Your task to perform on an android device: toggle priority inbox in the gmail app Image 0: 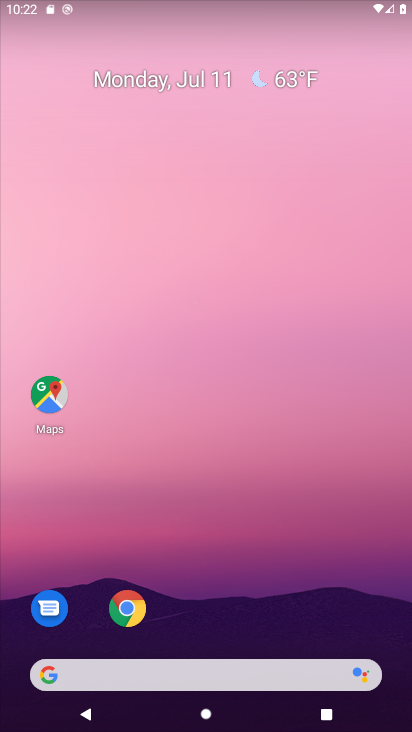
Step 0: drag from (262, 593) to (209, 66)
Your task to perform on an android device: toggle priority inbox in the gmail app Image 1: 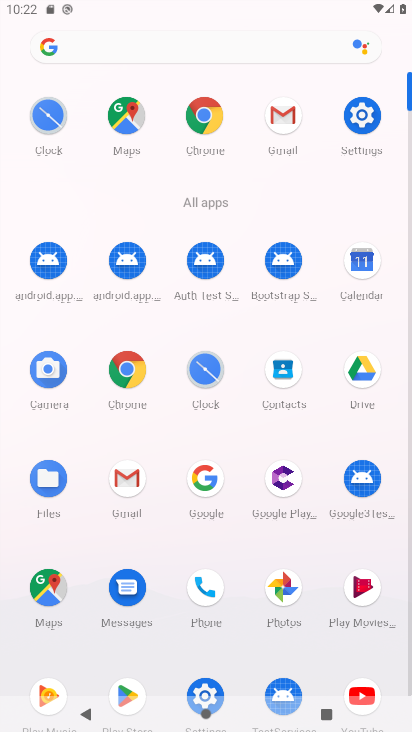
Step 1: click (288, 117)
Your task to perform on an android device: toggle priority inbox in the gmail app Image 2: 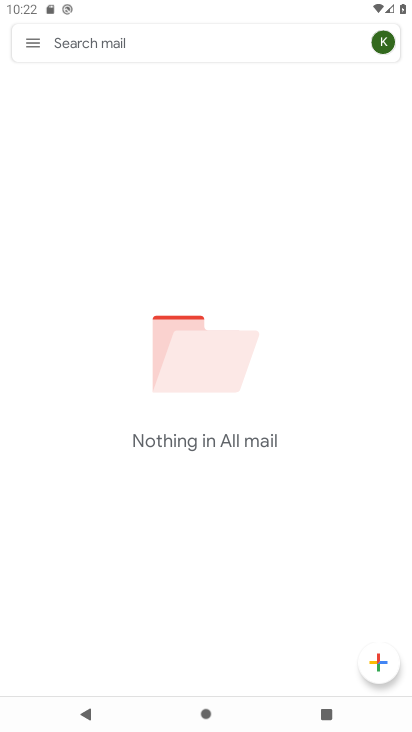
Step 2: click (34, 46)
Your task to perform on an android device: toggle priority inbox in the gmail app Image 3: 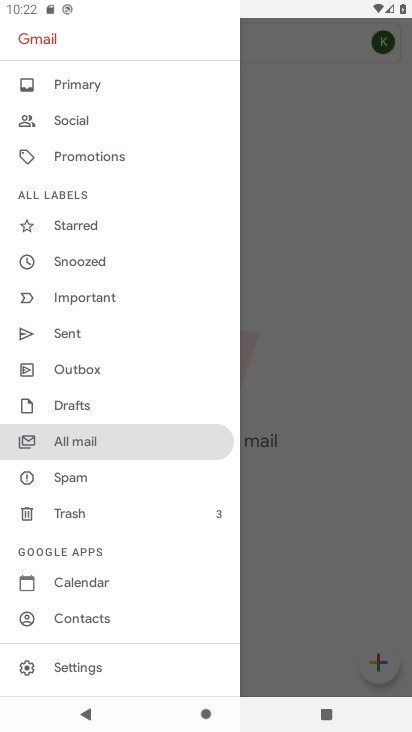
Step 3: click (120, 670)
Your task to perform on an android device: toggle priority inbox in the gmail app Image 4: 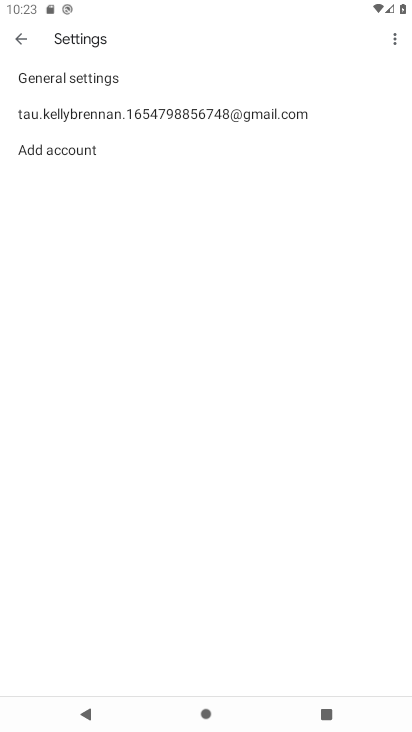
Step 4: click (207, 120)
Your task to perform on an android device: toggle priority inbox in the gmail app Image 5: 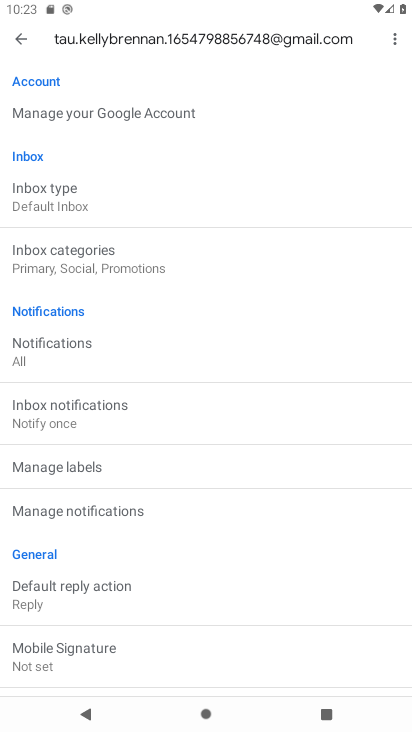
Step 5: click (61, 201)
Your task to perform on an android device: toggle priority inbox in the gmail app Image 6: 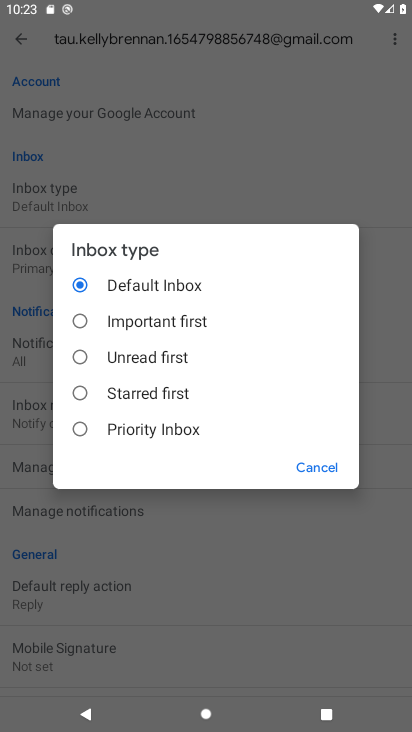
Step 6: click (132, 428)
Your task to perform on an android device: toggle priority inbox in the gmail app Image 7: 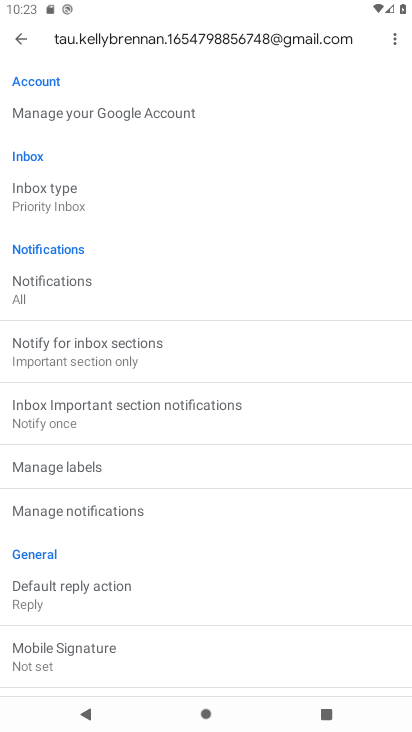
Step 7: task complete